Your task to perform on an android device: snooze an email in the gmail app Image 0: 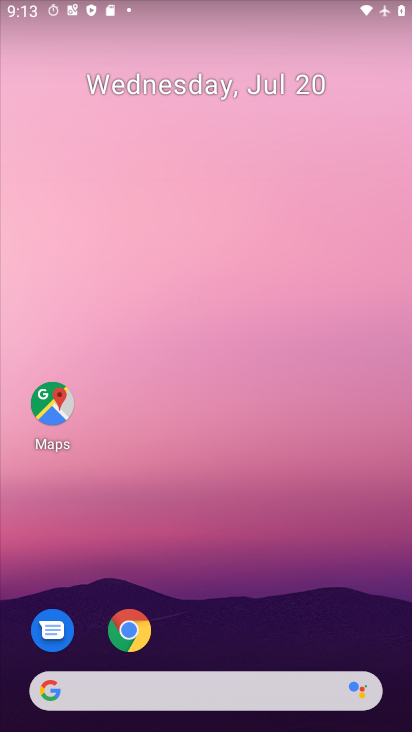
Step 0: drag from (253, 681) to (248, 299)
Your task to perform on an android device: snooze an email in the gmail app Image 1: 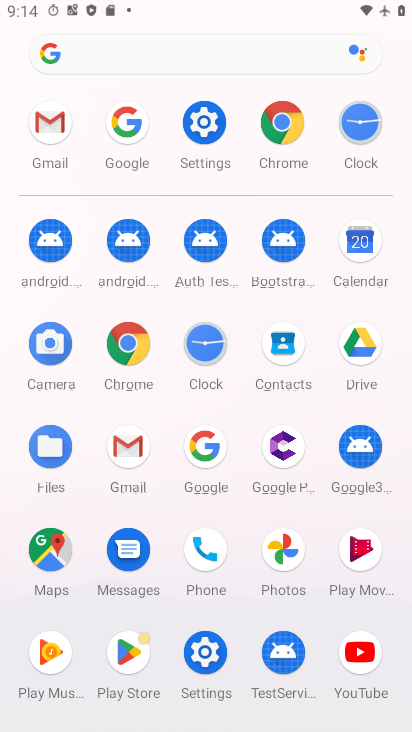
Step 1: click (124, 461)
Your task to perform on an android device: snooze an email in the gmail app Image 2: 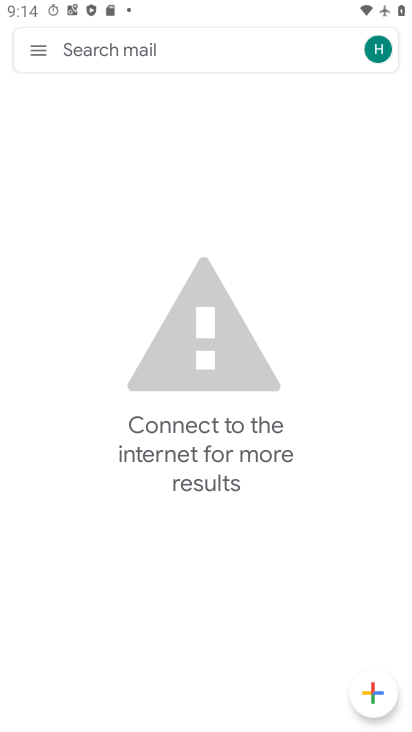
Step 2: click (40, 50)
Your task to perform on an android device: snooze an email in the gmail app Image 3: 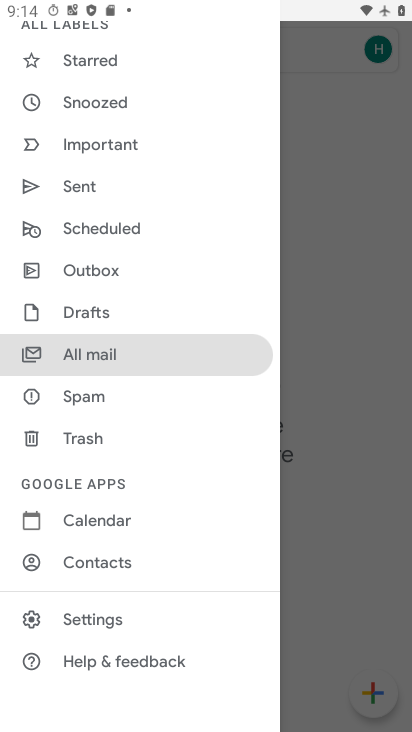
Step 3: click (147, 360)
Your task to perform on an android device: snooze an email in the gmail app Image 4: 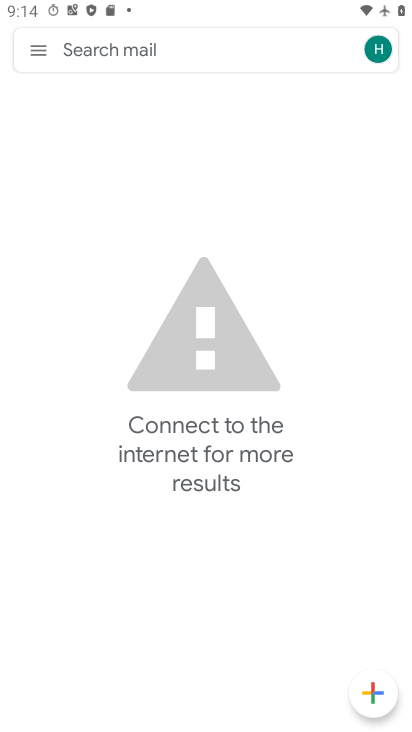
Step 4: task complete